Your task to perform on an android device: search for starred emails in the gmail app Image 0: 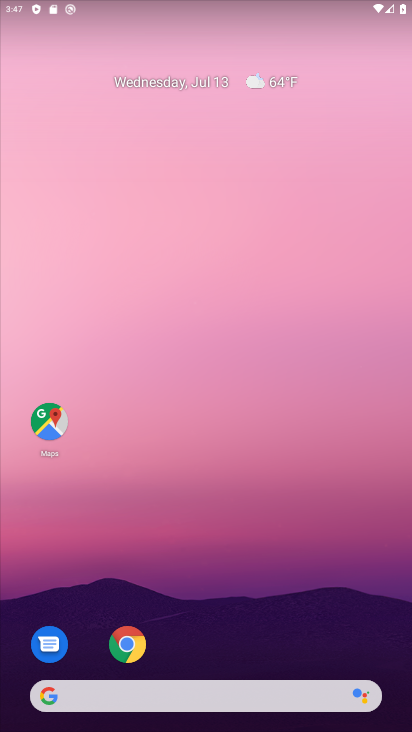
Step 0: drag from (232, 608) to (263, 113)
Your task to perform on an android device: search for starred emails in the gmail app Image 1: 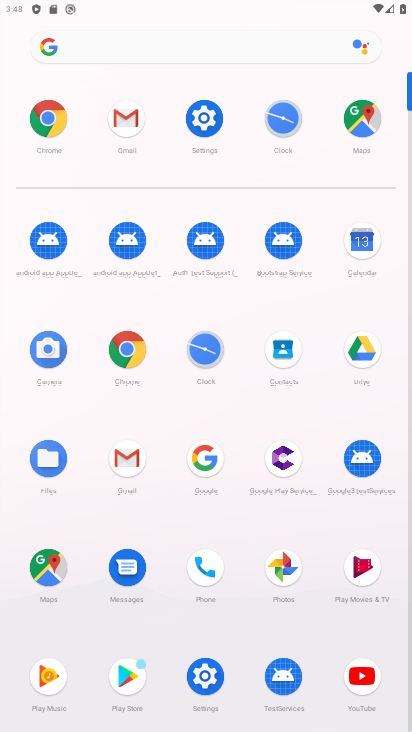
Step 1: click (129, 112)
Your task to perform on an android device: search for starred emails in the gmail app Image 2: 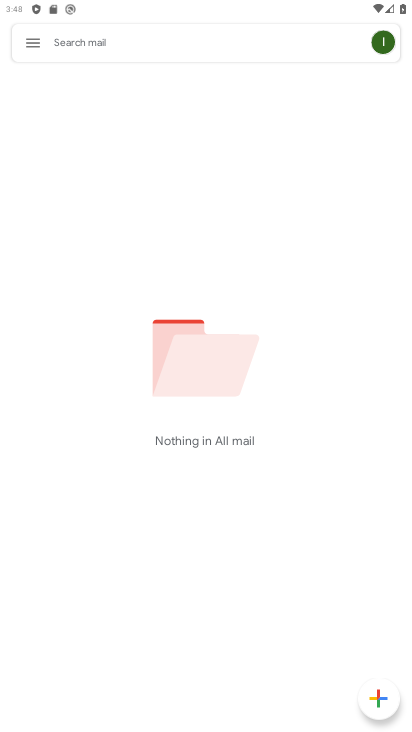
Step 2: click (29, 47)
Your task to perform on an android device: search for starred emails in the gmail app Image 3: 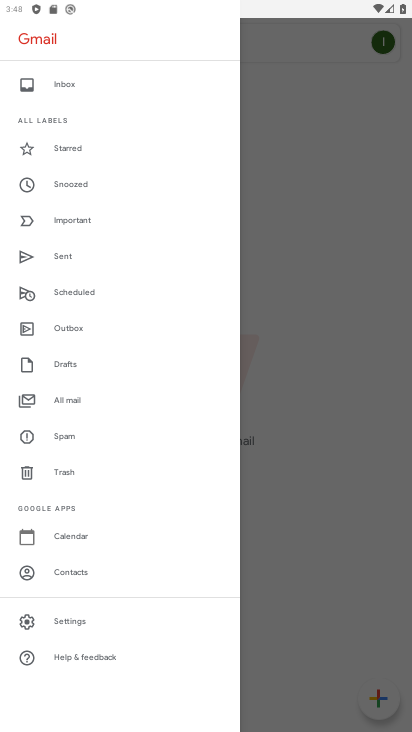
Step 3: click (65, 150)
Your task to perform on an android device: search for starred emails in the gmail app Image 4: 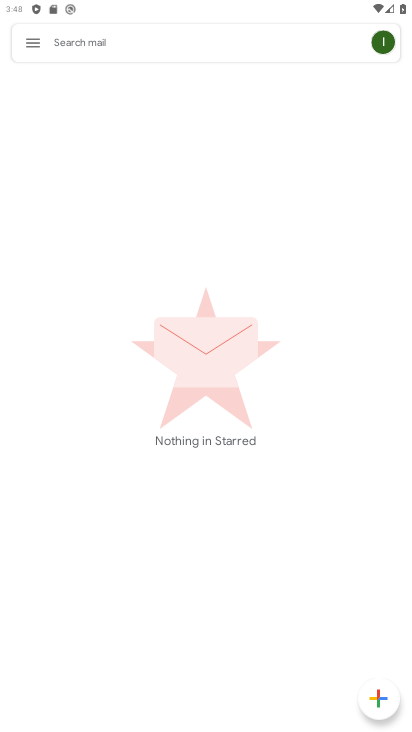
Step 4: task complete